Your task to perform on an android device: Go to Android settings Image 0: 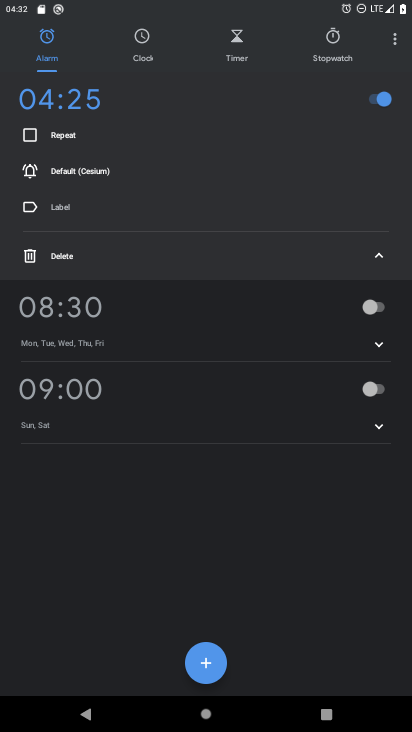
Step 0: press home button
Your task to perform on an android device: Go to Android settings Image 1: 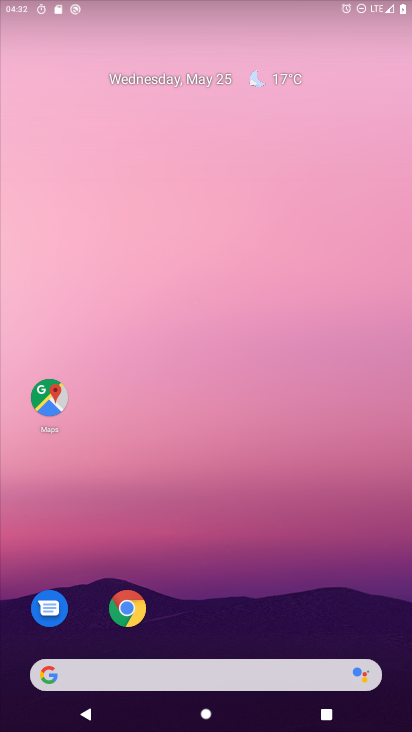
Step 1: drag from (267, 500) to (205, 111)
Your task to perform on an android device: Go to Android settings Image 2: 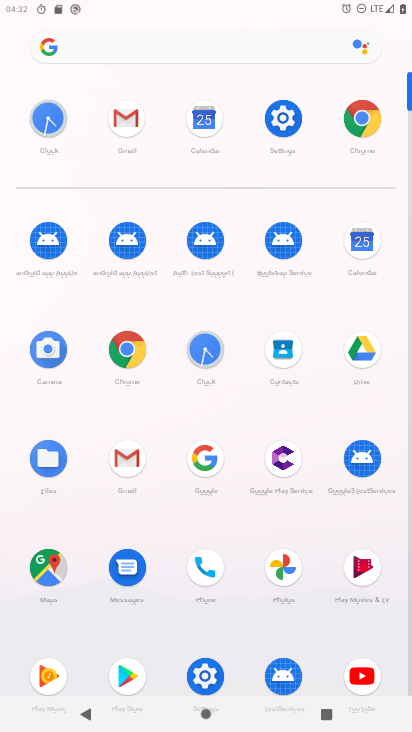
Step 2: click (278, 117)
Your task to perform on an android device: Go to Android settings Image 3: 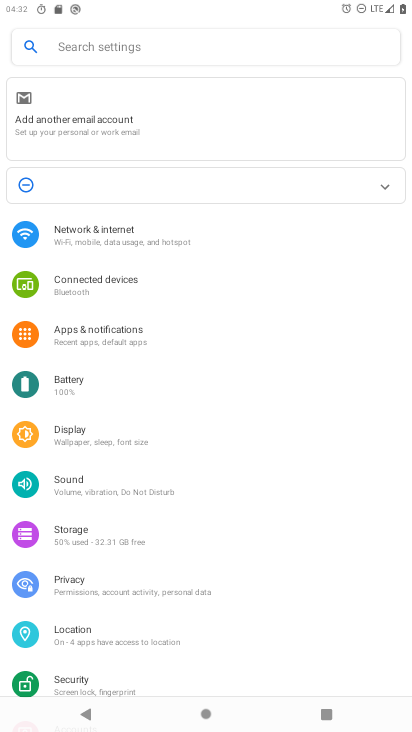
Step 3: task complete